Your task to perform on an android device: Open the calendar app, open the side menu, and click the "Day" option Image 0: 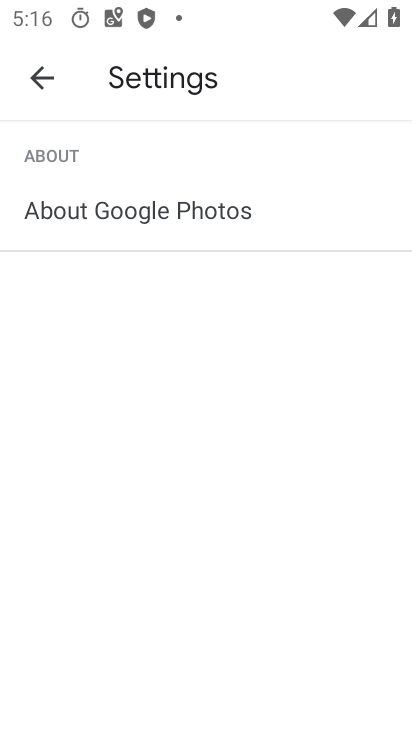
Step 0: press back button
Your task to perform on an android device: Open the calendar app, open the side menu, and click the "Day" option Image 1: 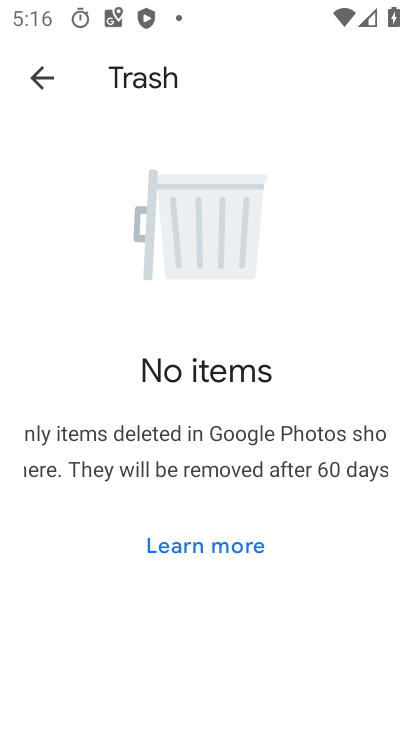
Step 1: press back button
Your task to perform on an android device: Open the calendar app, open the side menu, and click the "Day" option Image 2: 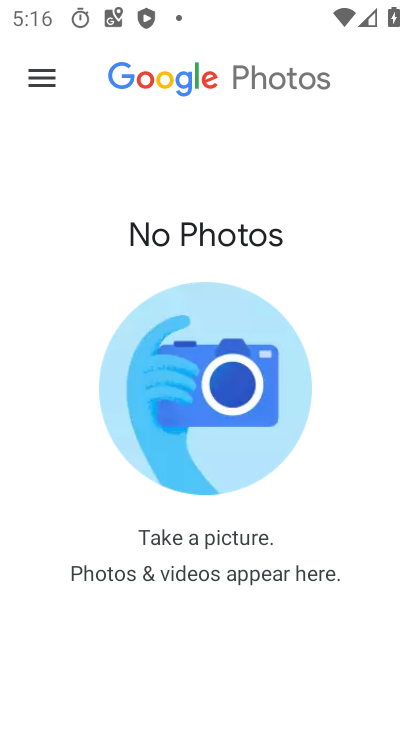
Step 2: press back button
Your task to perform on an android device: Open the calendar app, open the side menu, and click the "Day" option Image 3: 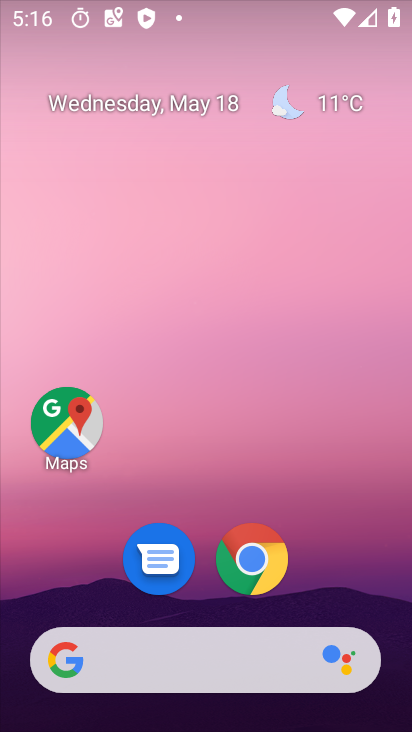
Step 3: drag from (215, 485) to (212, 9)
Your task to perform on an android device: Open the calendar app, open the side menu, and click the "Day" option Image 4: 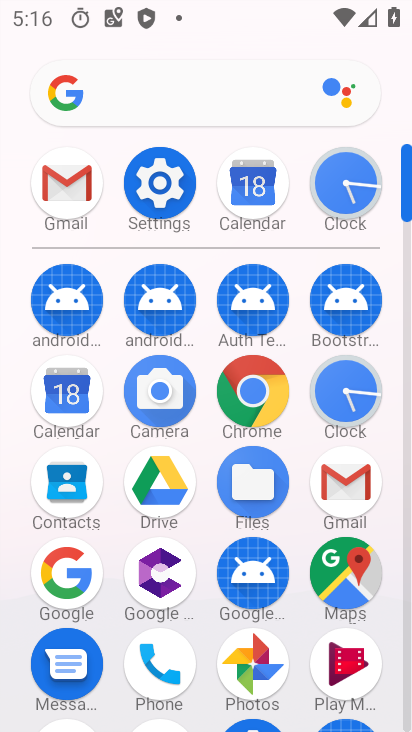
Step 4: click (71, 407)
Your task to perform on an android device: Open the calendar app, open the side menu, and click the "Day" option Image 5: 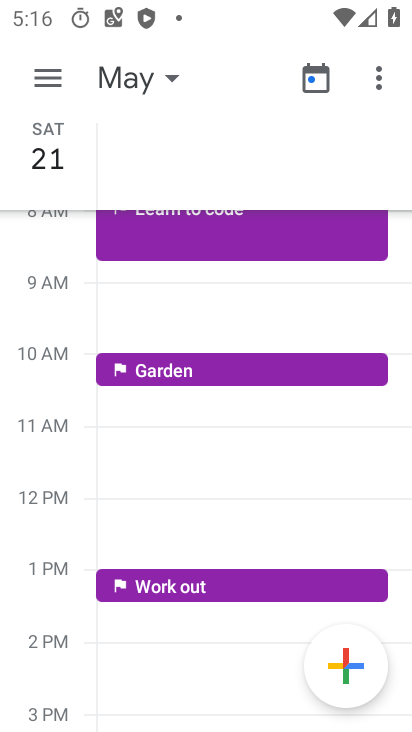
Step 5: click (43, 81)
Your task to perform on an android device: Open the calendar app, open the side menu, and click the "Day" option Image 6: 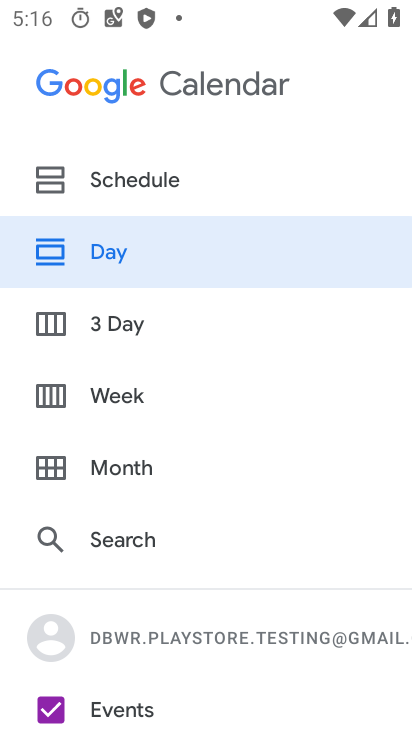
Step 6: click (157, 254)
Your task to perform on an android device: Open the calendar app, open the side menu, and click the "Day" option Image 7: 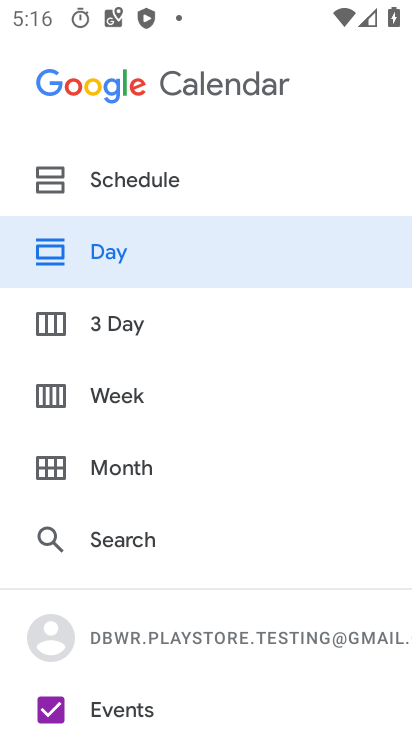
Step 7: task complete